Your task to perform on an android device: Open Google Maps Image 0: 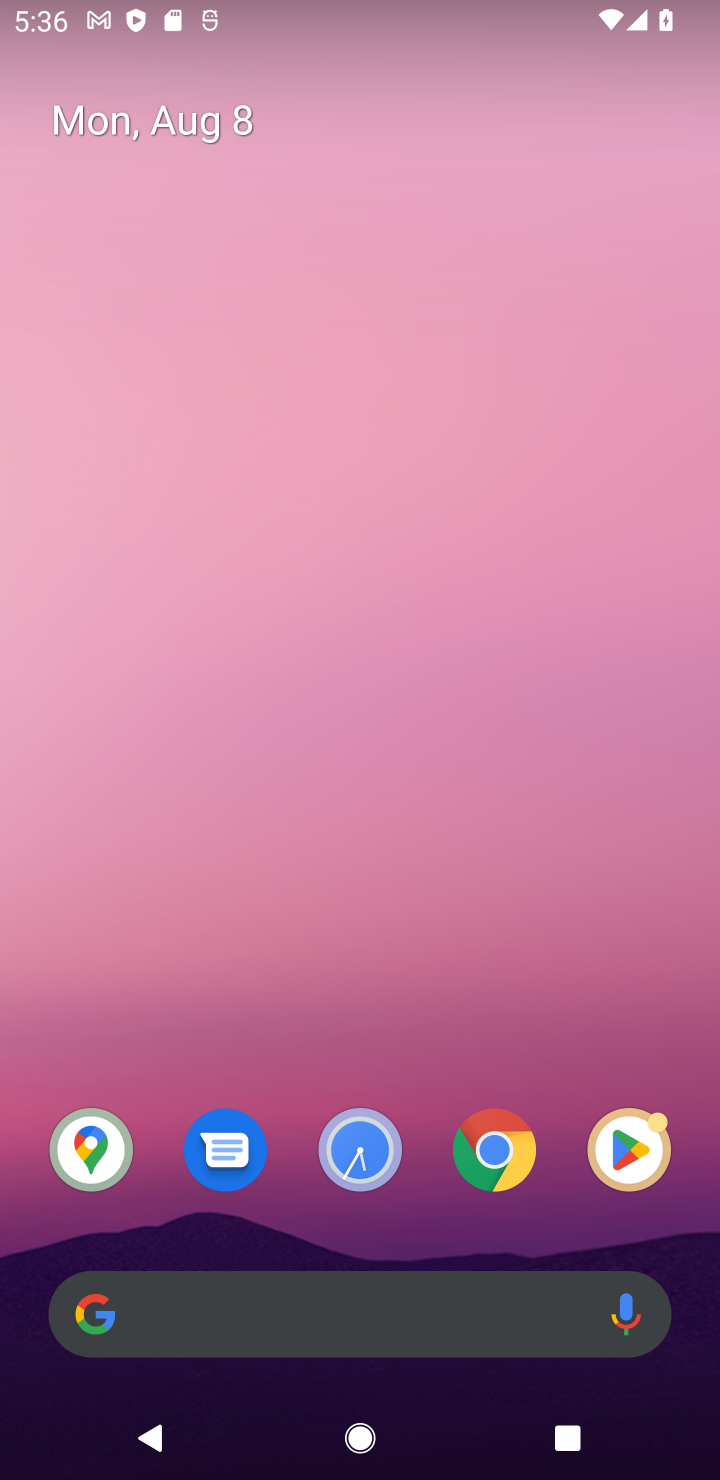
Step 0: click (87, 1148)
Your task to perform on an android device: Open Google Maps Image 1: 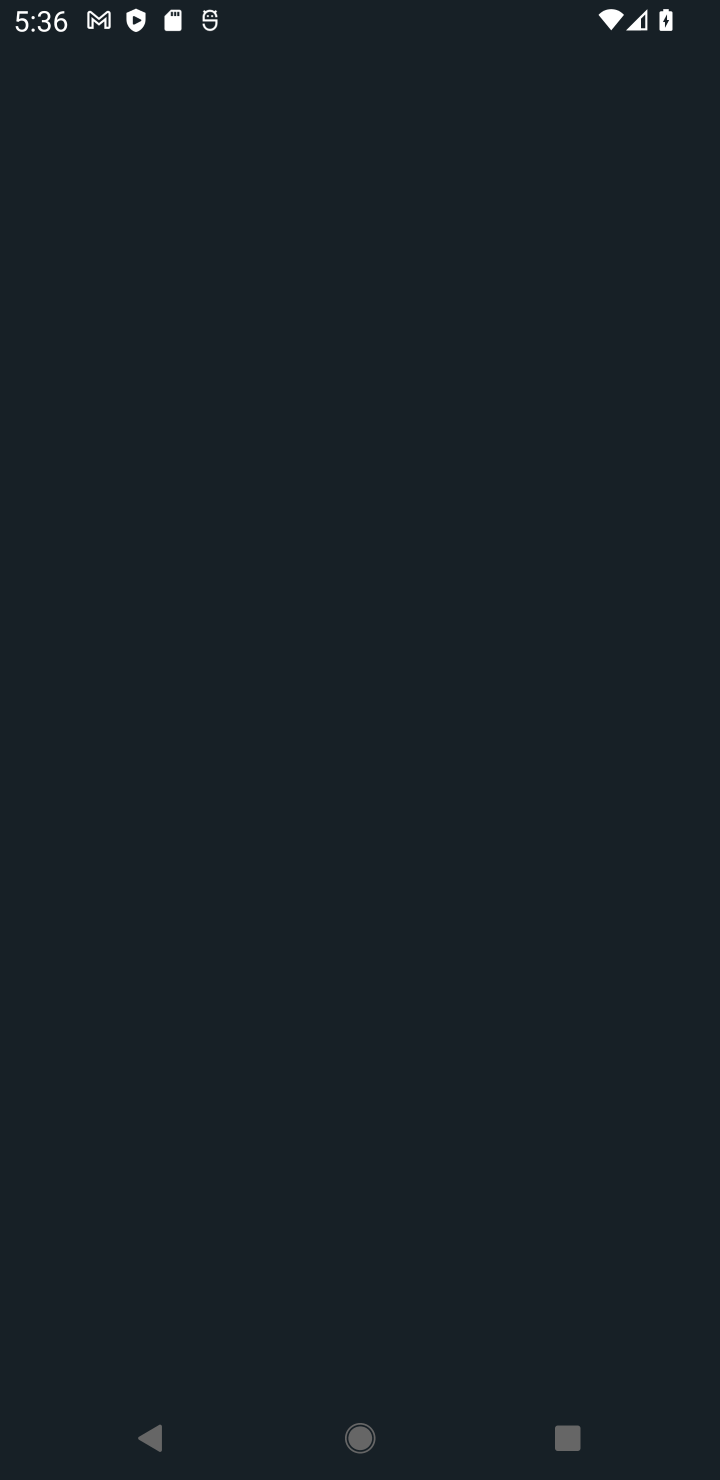
Step 1: task complete